Your task to perform on an android device: add a contact in the contacts app Image 0: 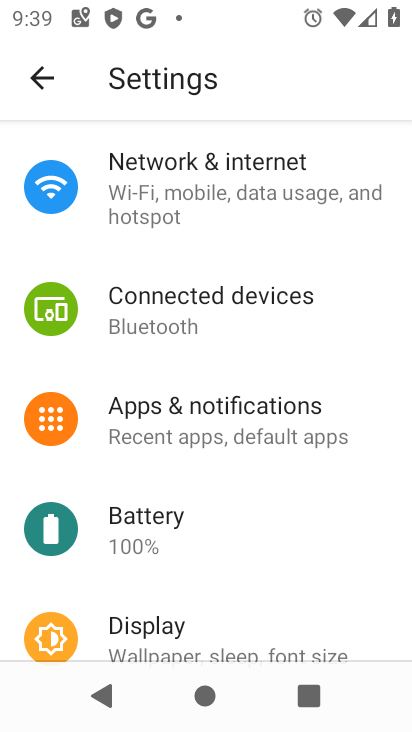
Step 0: press home button
Your task to perform on an android device: add a contact in the contacts app Image 1: 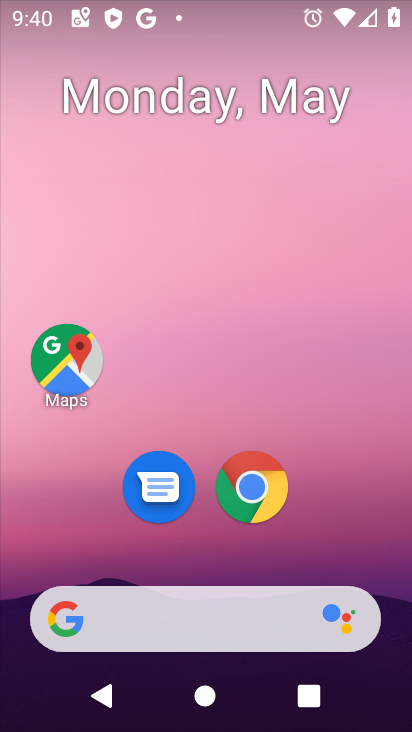
Step 1: drag from (197, 571) to (169, 96)
Your task to perform on an android device: add a contact in the contacts app Image 2: 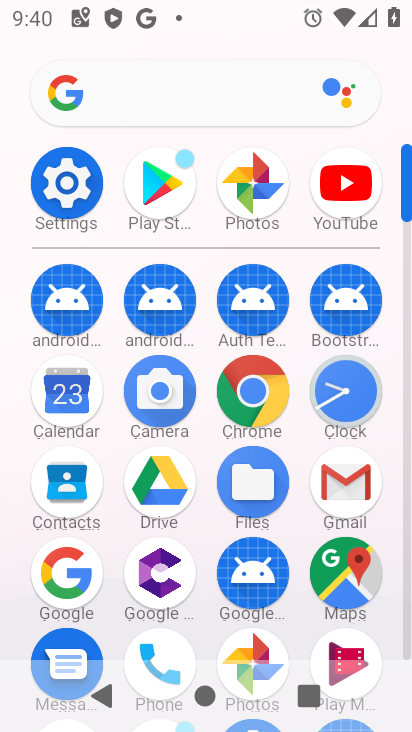
Step 2: click (47, 484)
Your task to perform on an android device: add a contact in the contacts app Image 3: 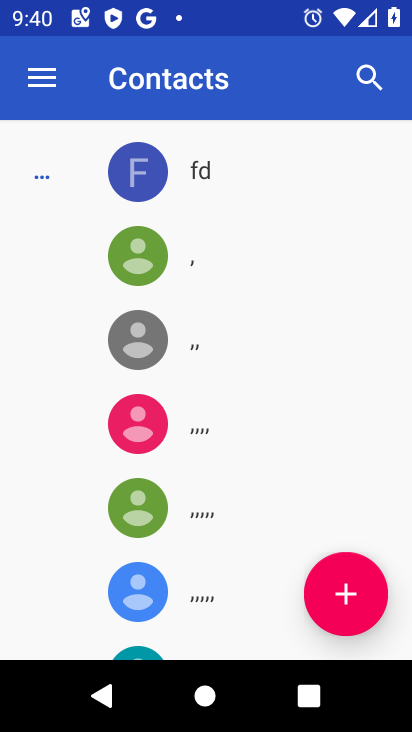
Step 3: click (384, 574)
Your task to perform on an android device: add a contact in the contacts app Image 4: 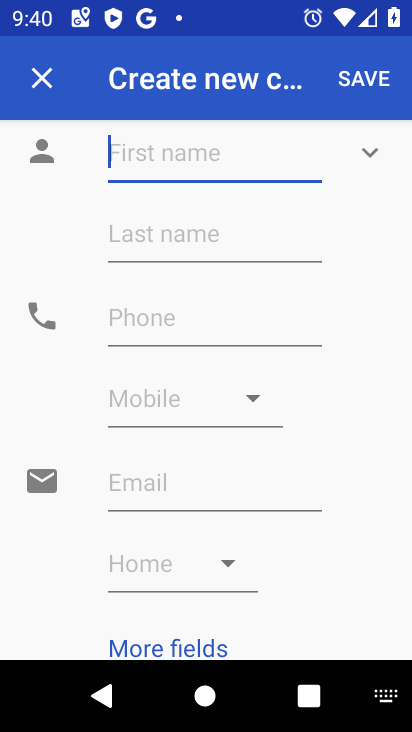
Step 4: type "bbbbb"
Your task to perform on an android device: add a contact in the contacts app Image 5: 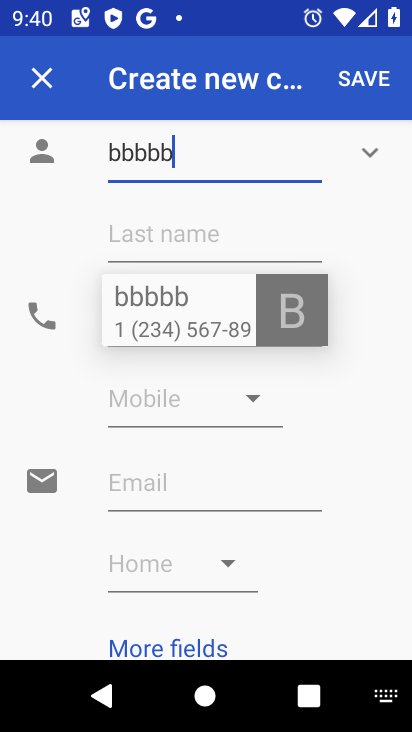
Step 5: type "nnnn"
Your task to perform on an android device: add a contact in the contacts app Image 6: 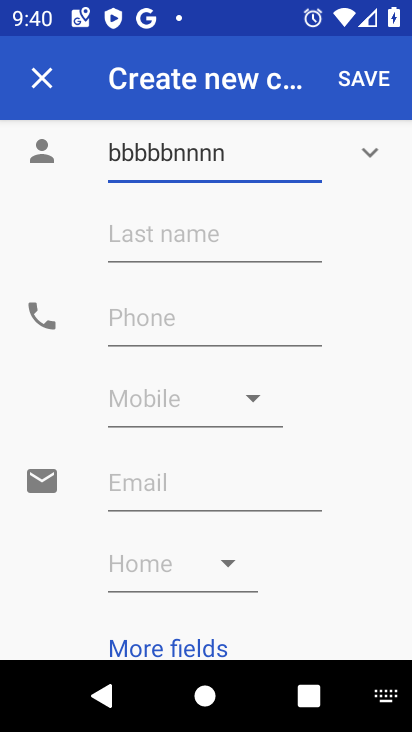
Step 6: click (154, 394)
Your task to perform on an android device: add a contact in the contacts app Image 7: 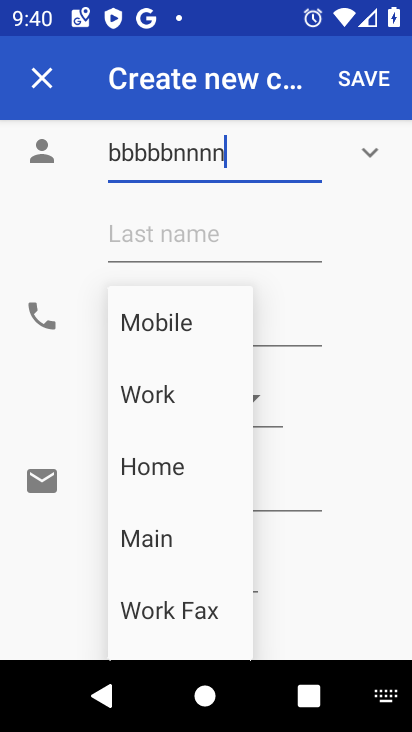
Step 7: click (265, 298)
Your task to perform on an android device: add a contact in the contacts app Image 8: 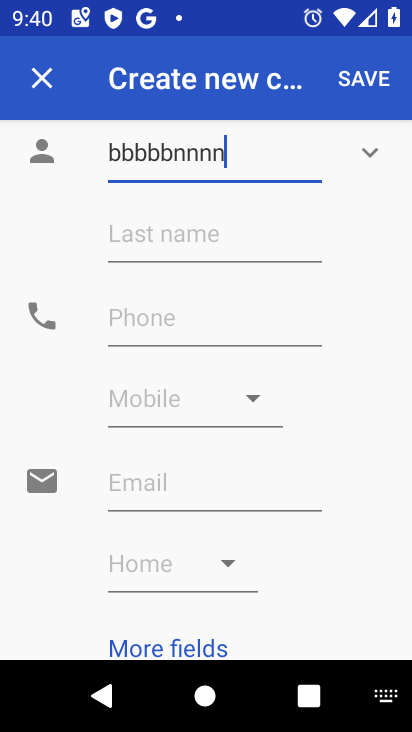
Step 8: click (265, 298)
Your task to perform on an android device: add a contact in the contacts app Image 9: 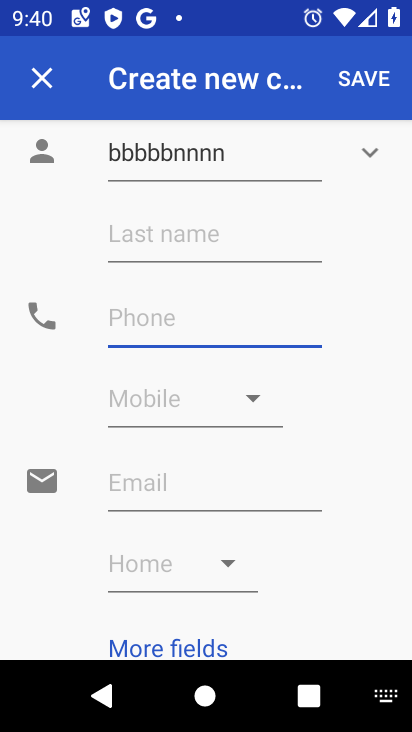
Step 9: type "987654567"
Your task to perform on an android device: add a contact in the contacts app Image 10: 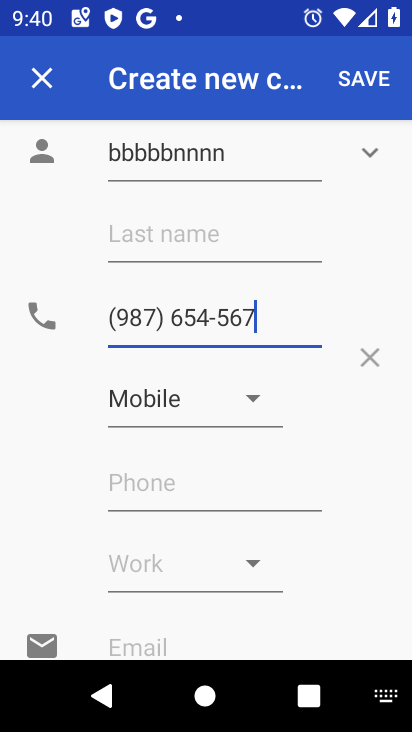
Step 10: click (375, 87)
Your task to perform on an android device: add a contact in the contacts app Image 11: 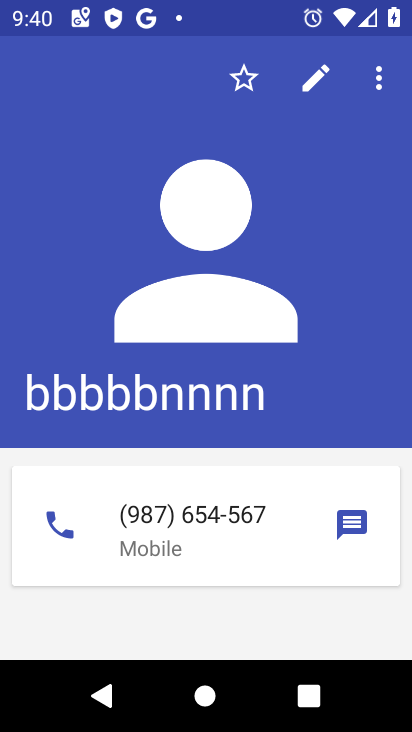
Step 11: task complete